Your task to perform on an android device: turn off improve location accuracy Image 0: 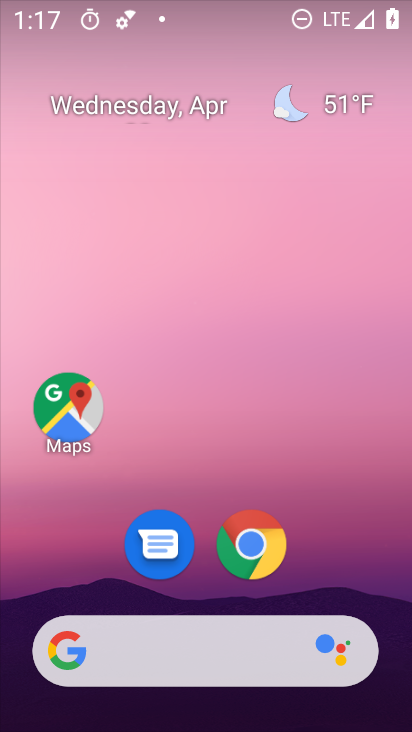
Step 0: drag from (329, 568) to (335, 198)
Your task to perform on an android device: turn off improve location accuracy Image 1: 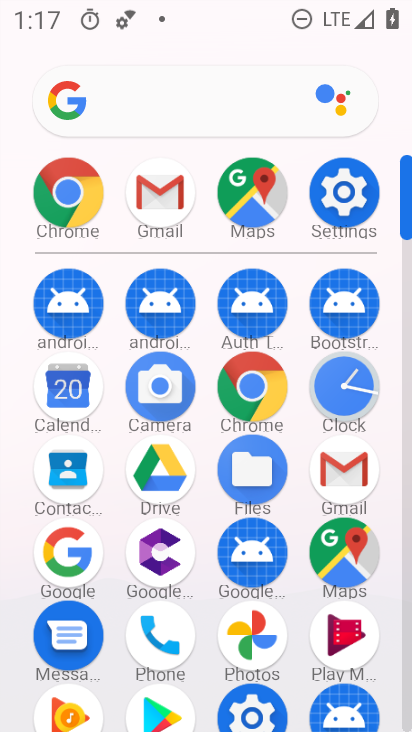
Step 1: click (362, 184)
Your task to perform on an android device: turn off improve location accuracy Image 2: 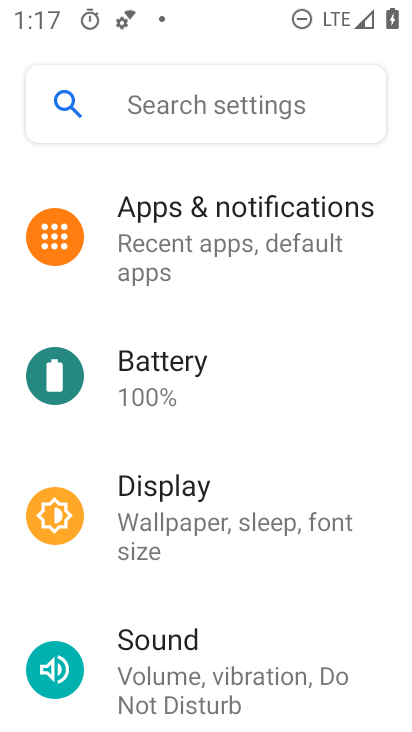
Step 2: drag from (376, 355) to (375, 574)
Your task to perform on an android device: turn off improve location accuracy Image 3: 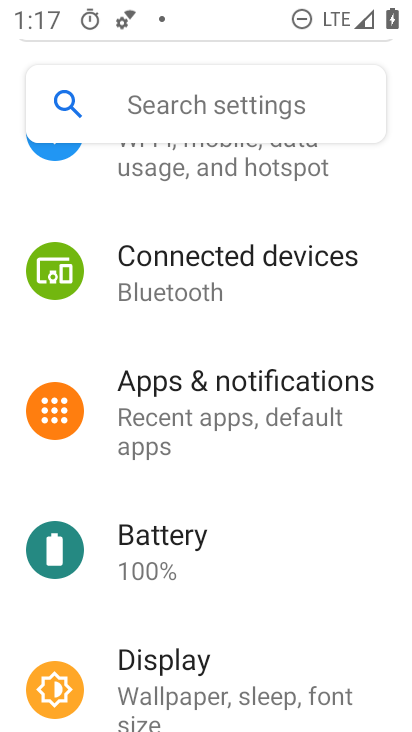
Step 3: drag from (385, 230) to (386, 464)
Your task to perform on an android device: turn off improve location accuracy Image 4: 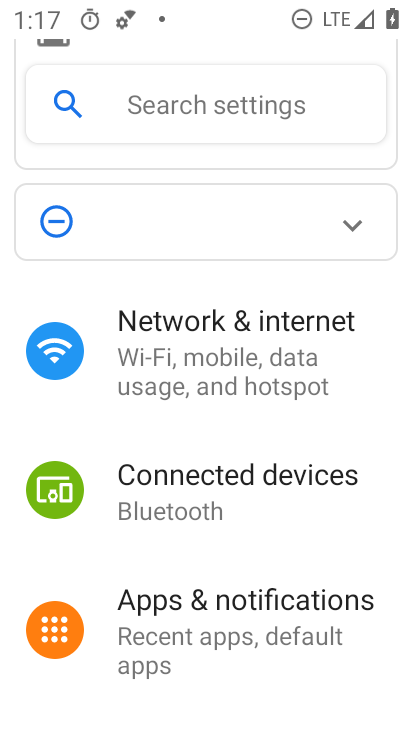
Step 4: drag from (375, 561) to (386, 386)
Your task to perform on an android device: turn off improve location accuracy Image 5: 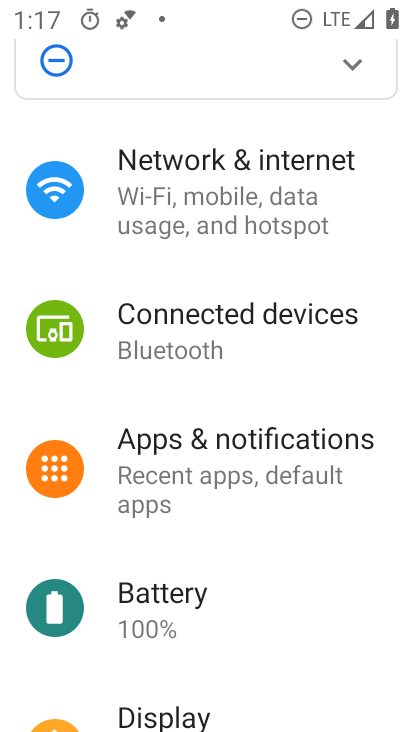
Step 5: drag from (367, 612) to (379, 388)
Your task to perform on an android device: turn off improve location accuracy Image 6: 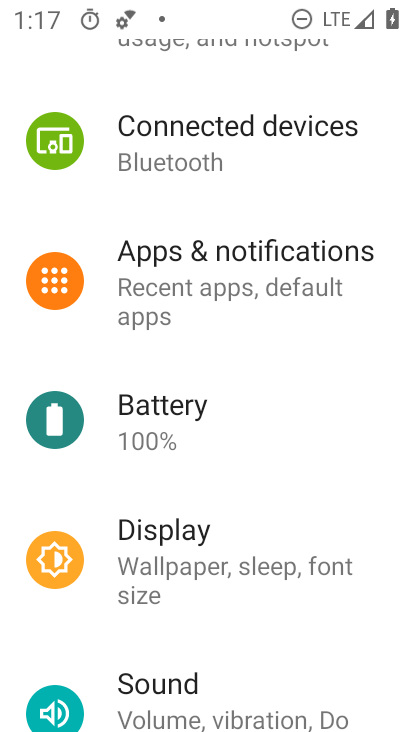
Step 6: drag from (370, 631) to (378, 416)
Your task to perform on an android device: turn off improve location accuracy Image 7: 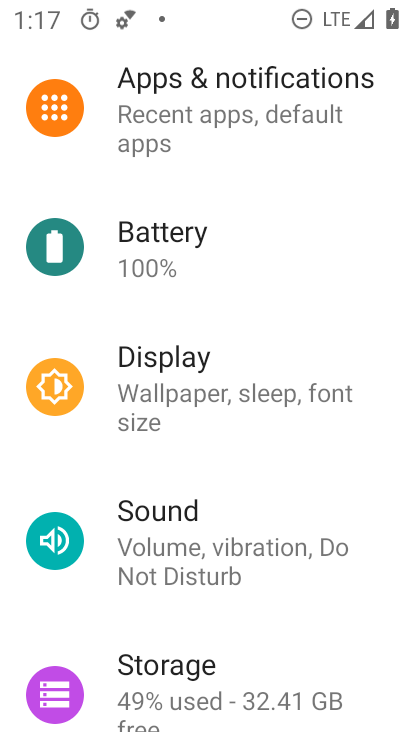
Step 7: drag from (363, 632) to (384, 387)
Your task to perform on an android device: turn off improve location accuracy Image 8: 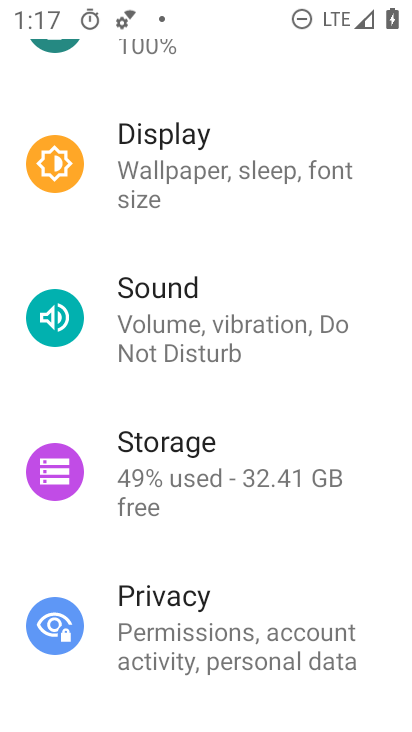
Step 8: drag from (380, 662) to (379, 420)
Your task to perform on an android device: turn off improve location accuracy Image 9: 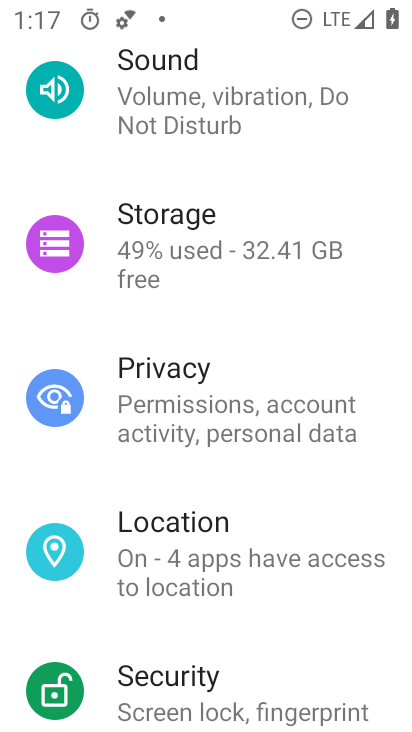
Step 9: drag from (344, 641) to (387, 388)
Your task to perform on an android device: turn off improve location accuracy Image 10: 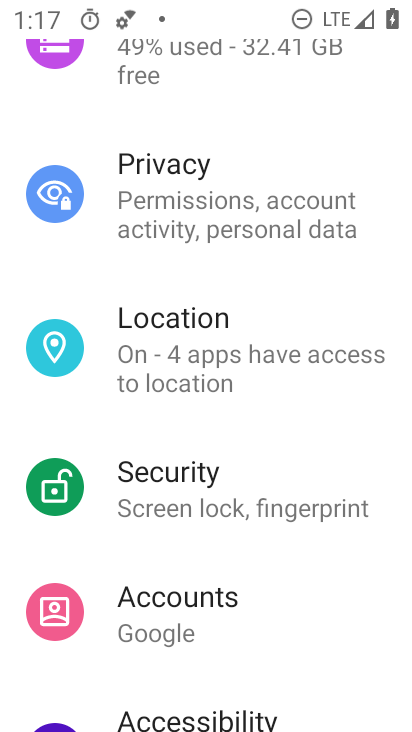
Step 10: drag from (367, 657) to (367, 447)
Your task to perform on an android device: turn off improve location accuracy Image 11: 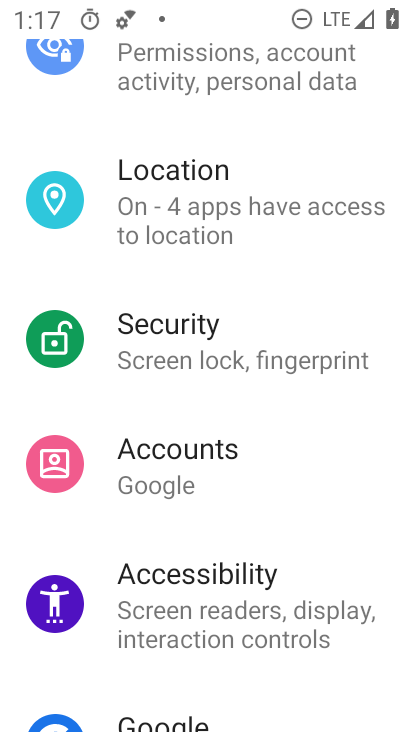
Step 11: drag from (381, 275) to (371, 613)
Your task to perform on an android device: turn off improve location accuracy Image 12: 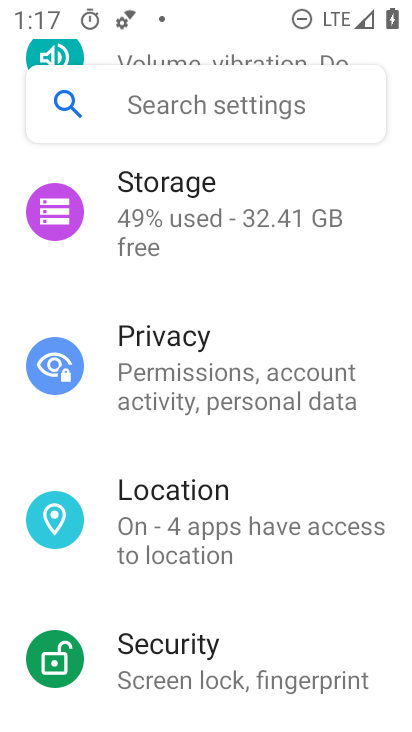
Step 12: click (159, 523)
Your task to perform on an android device: turn off improve location accuracy Image 13: 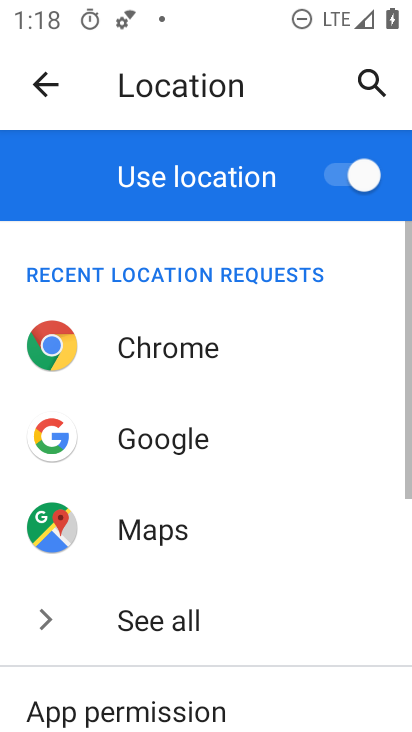
Step 13: drag from (300, 638) to (334, 372)
Your task to perform on an android device: turn off improve location accuracy Image 14: 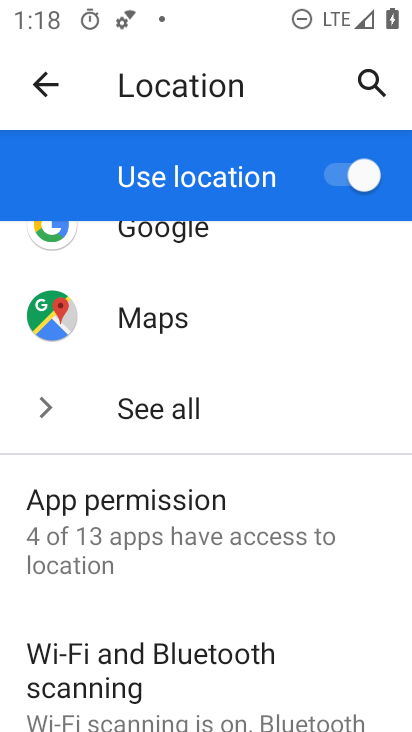
Step 14: drag from (348, 609) to (360, 339)
Your task to perform on an android device: turn off improve location accuracy Image 15: 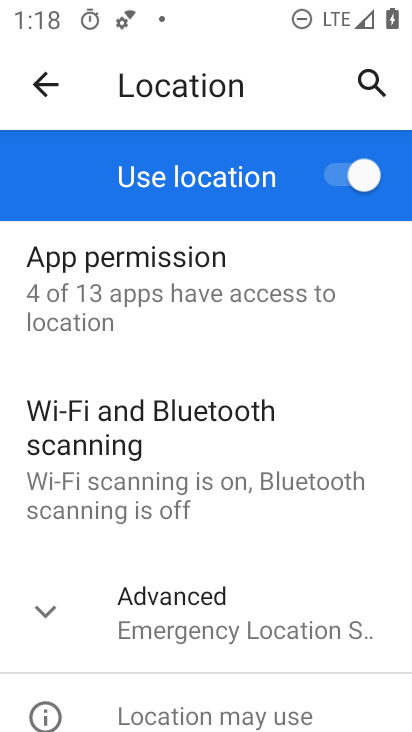
Step 15: click (213, 631)
Your task to perform on an android device: turn off improve location accuracy Image 16: 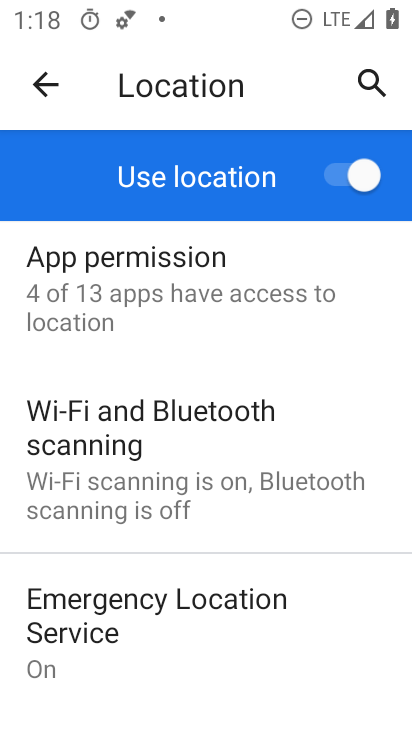
Step 16: drag from (351, 625) to (362, 422)
Your task to perform on an android device: turn off improve location accuracy Image 17: 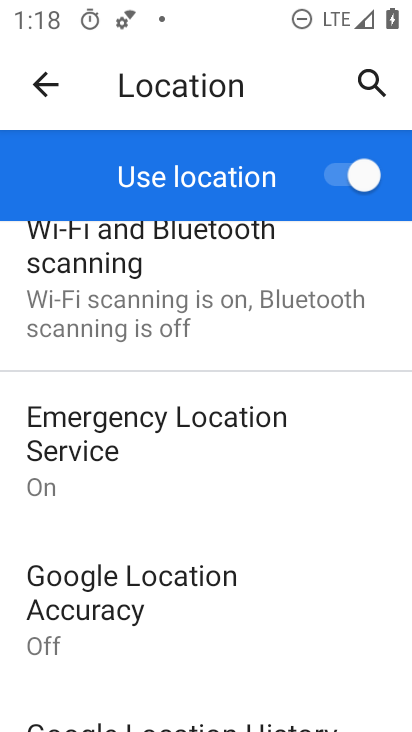
Step 17: drag from (332, 619) to (339, 440)
Your task to perform on an android device: turn off improve location accuracy Image 18: 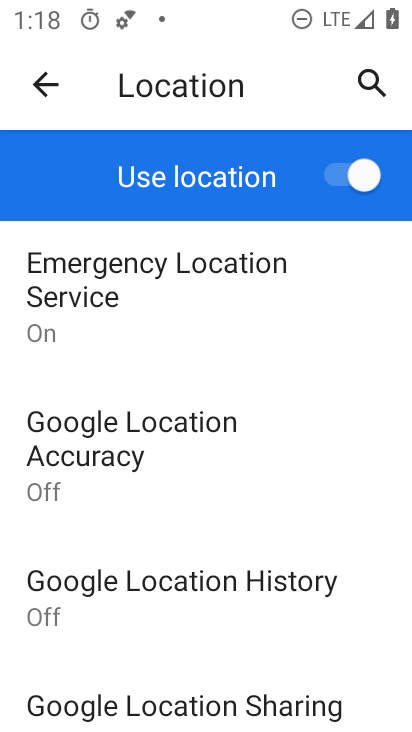
Step 18: click (111, 450)
Your task to perform on an android device: turn off improve location accuracy Image 19: 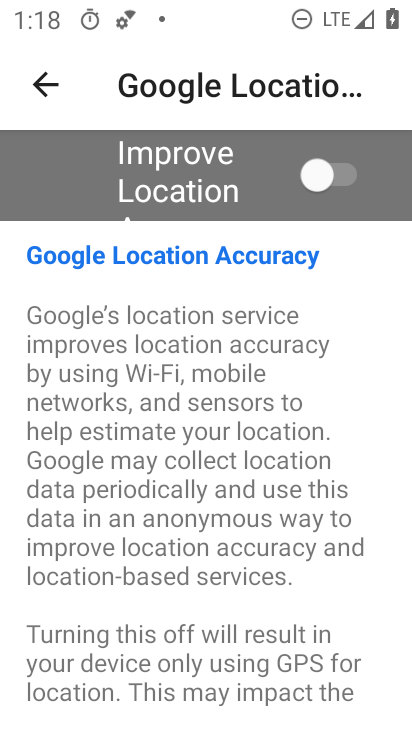
Step 19: task complete